Your task to perform on an android device: Show me the alarms in the clock app Image 0: 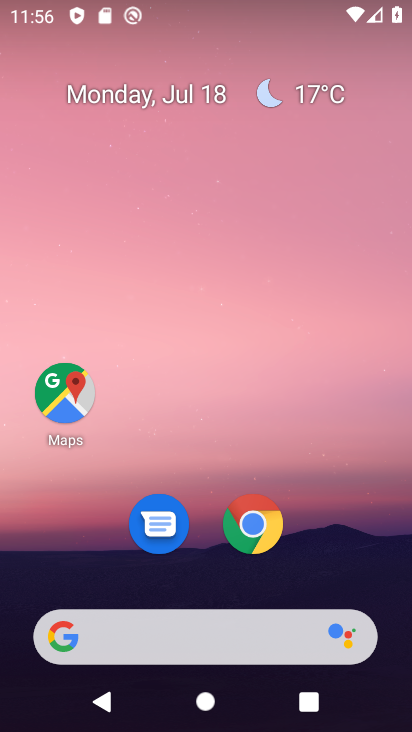
Step 0: drag from (209, 582) to (145, 137)
Your task to perform on an android device: Show me the alarms in the clock app Image 1: 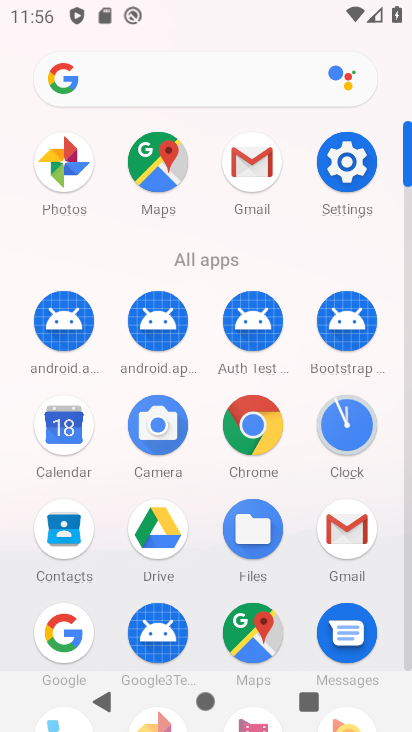
Step 1: click (355, 432)
Your task to perform on an android device: Show me the alarms in the clock app Image 2: 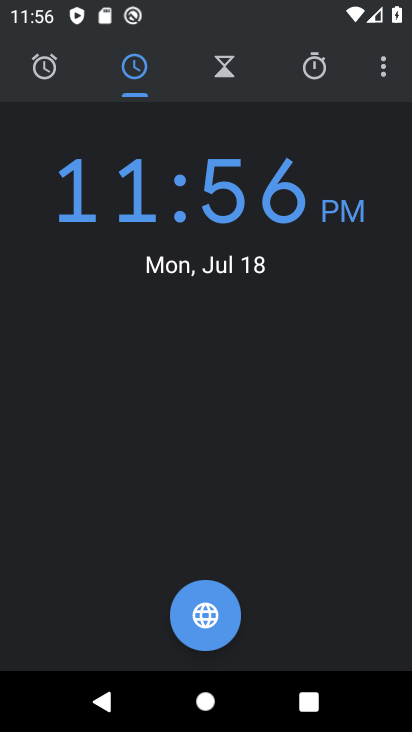
Step 2: click (57, 73)
Your task to perform on an android device: Show me the alarms in the clock app Image 3: 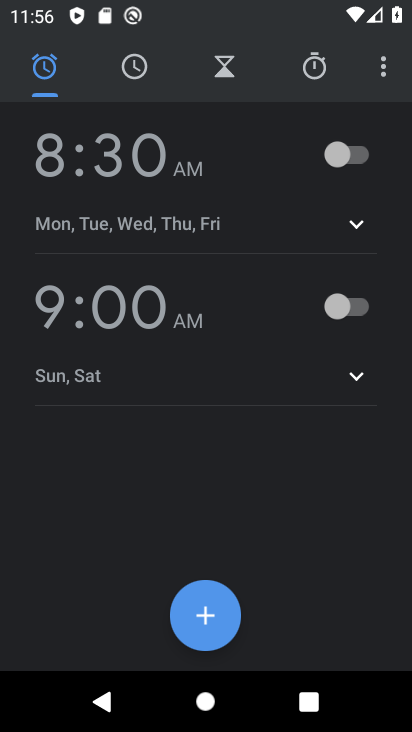
Step 3: task complete